Your task to perform on an android device: change the clock display to digital Image 0: 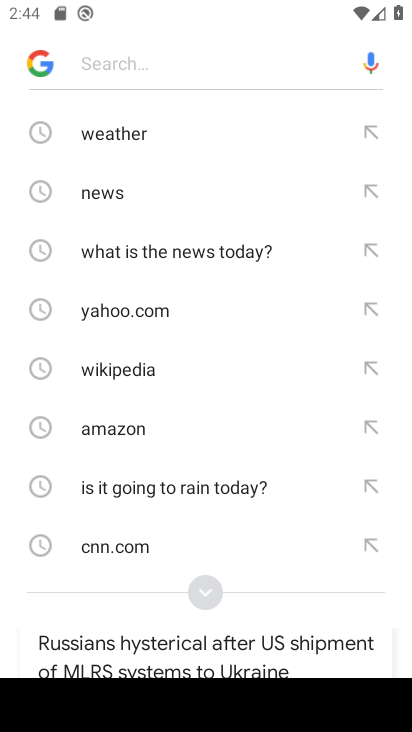
Step 0: press home button
Your task to perform on an android device: change the clock display to digital Image 1: 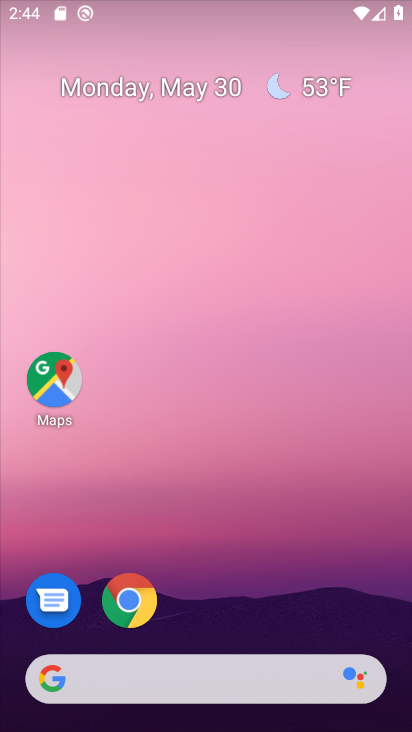
Step 1: drag from (345, 559) to (313, 21)
Your task to perform on an android device: change the clock display to digital Image 2: 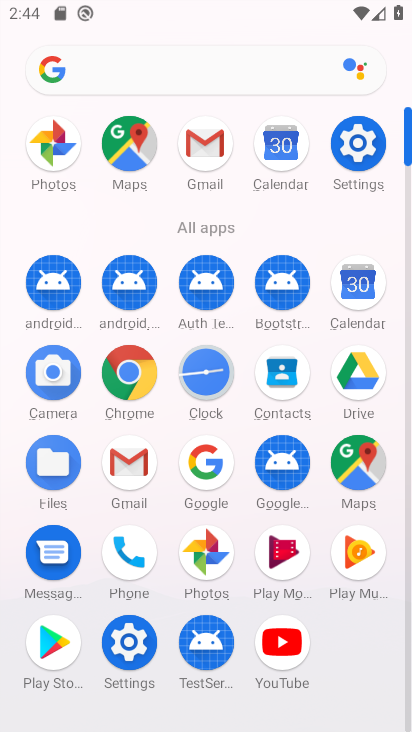
Step 2: click (214, 372)
Your task to perform on an android device: change the clock display to digital Image 3: 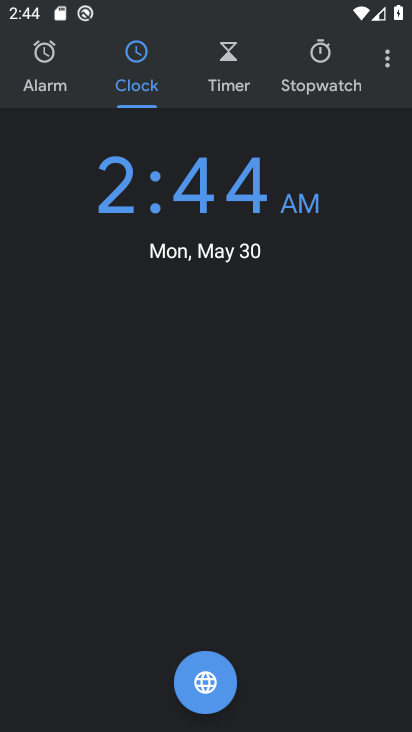
Step 3: click (376, 57)
Your task to perform on an android device: change the clock display to digital Image 4: 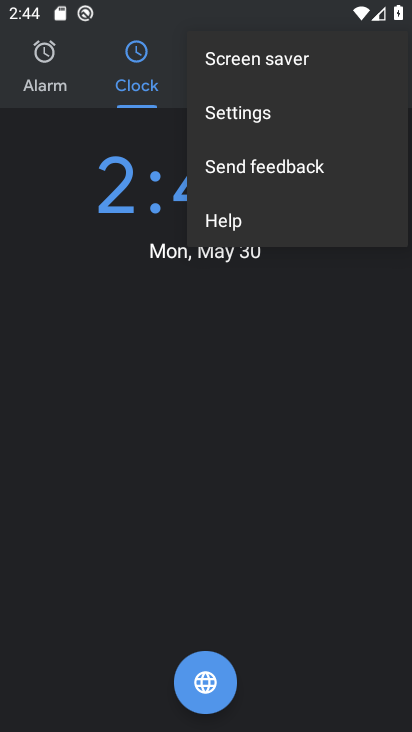
Step 4: click (236, 122)
Your task to perform on an android device: change the clock display to digital Image 5: 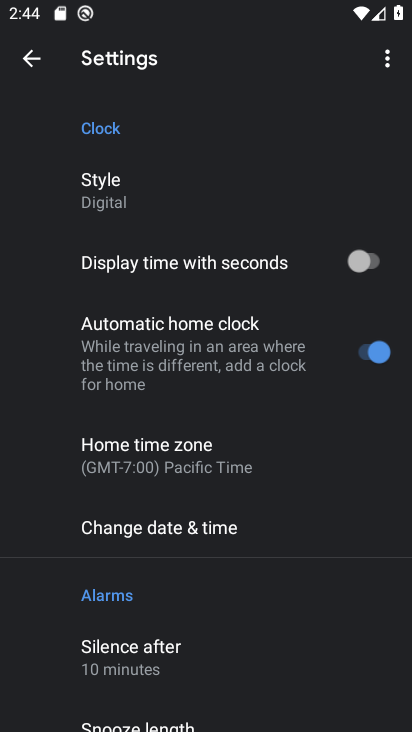
Step 5: drag from (208, 659) to (214, 338)
Your task to perform on an android device: change the clock display to digital Image 6: 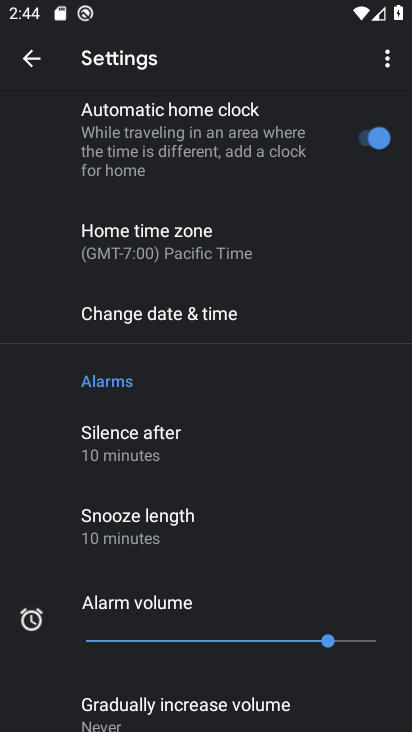
Step 6: drag from (218, 124) to (232, 639)
Your task to perform on an android device: change the clock display to digital Image 7: 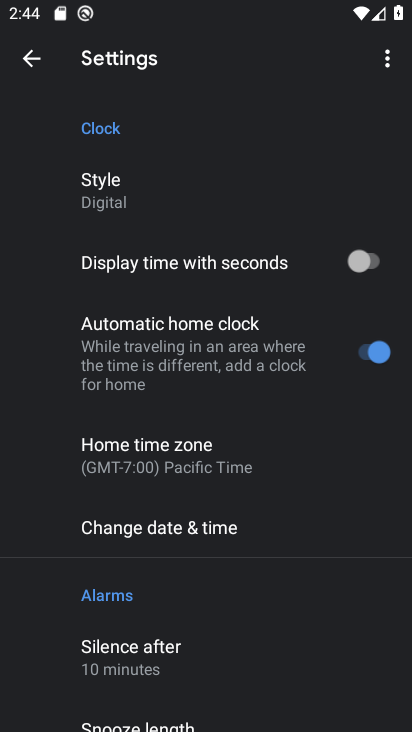
Step 7: click (129, 202)
Your task to perform on an android device: change the clock display to digital Image 8: 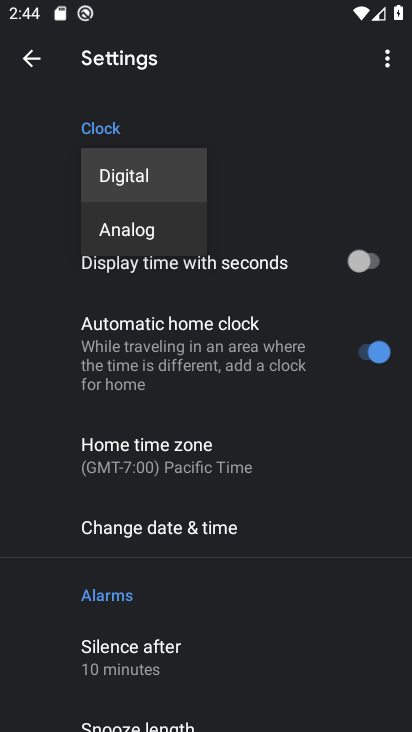
Step 8: click (138, 179)
Your task to perform on an android device: change the clock display to digital Image 9: 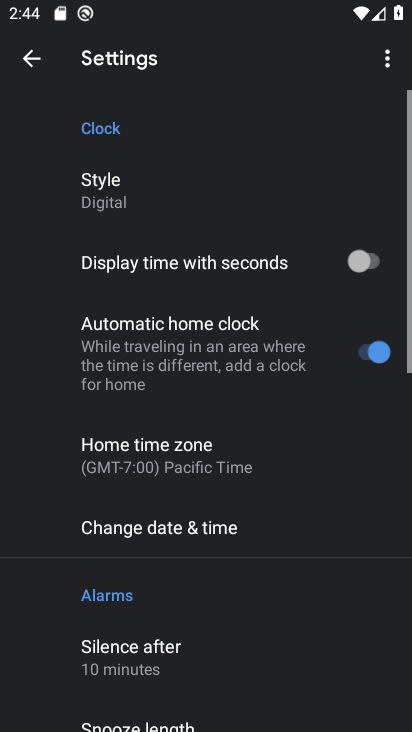
Step 9: task complete